Your task to perform on an android device: manage bookmarks in the chrome app Image 0: 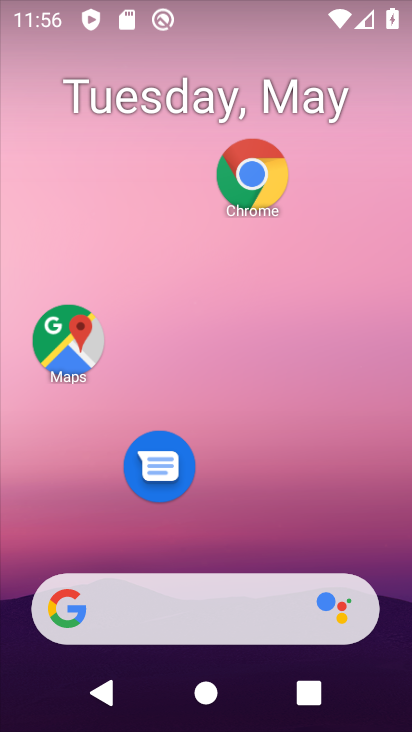
Step 0: click (256, 173)
Your task to perform on an android device: manage bookmarks in the chrome app Image 1: 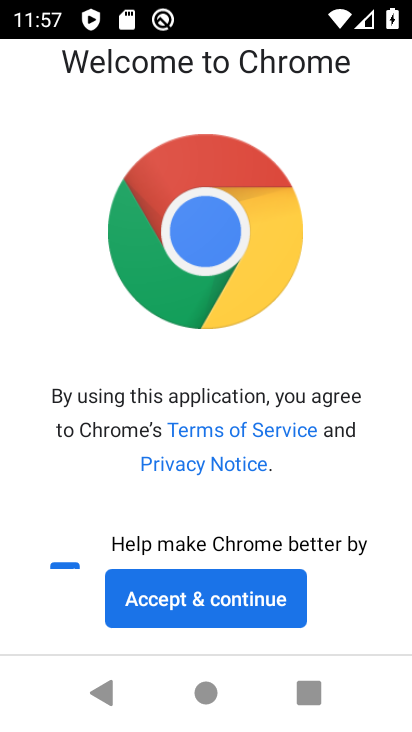
Step 1: click (200, 596)
Your task to perform on an android device: manage bookmarks in the chrome app Image 2: 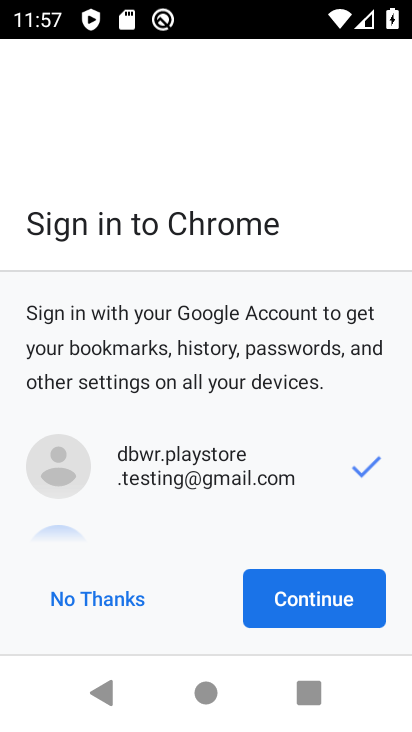
Step 2: click (314, 612)
Your task to perform on an android device: manage bookmarks in the chrome app Image 3: 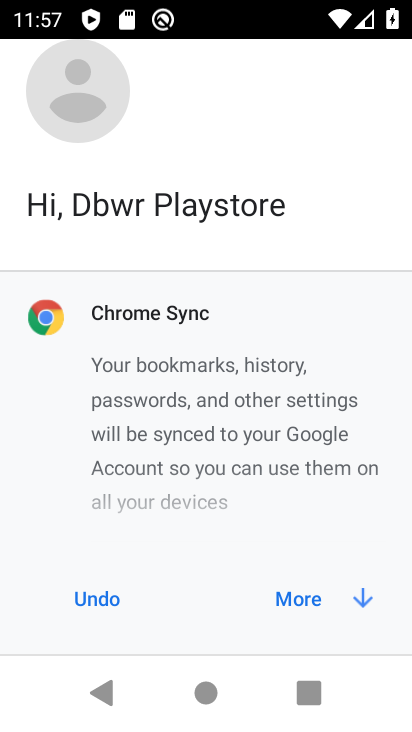
Step 3: click (341, 598)
Your task to perform on an android device: manage bookmarks in the chrome app Image 4: 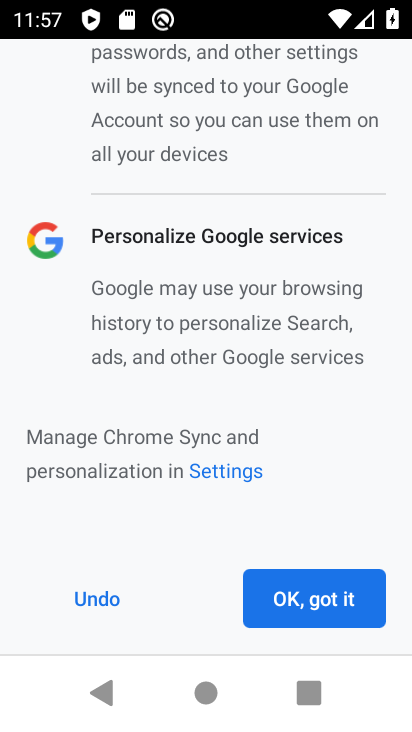
Step 4: click (341, 598)
Your task to perform on an android device: manage bookmarks in the chrome app Image 5: 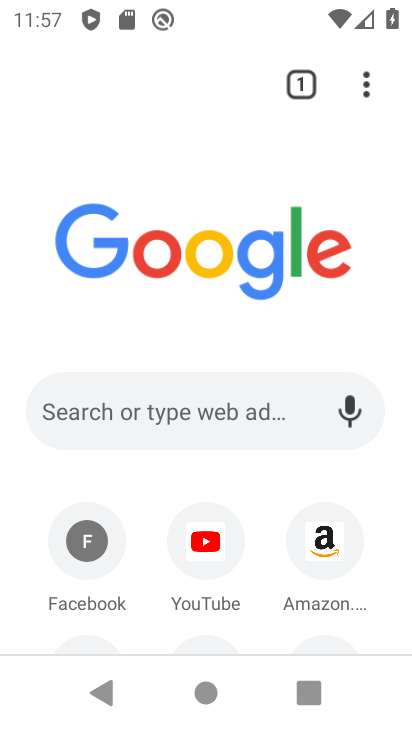
Step 5: click (376, 77)
Your task to perform on an android device: manage bookmarks in the chrome app Image 6: 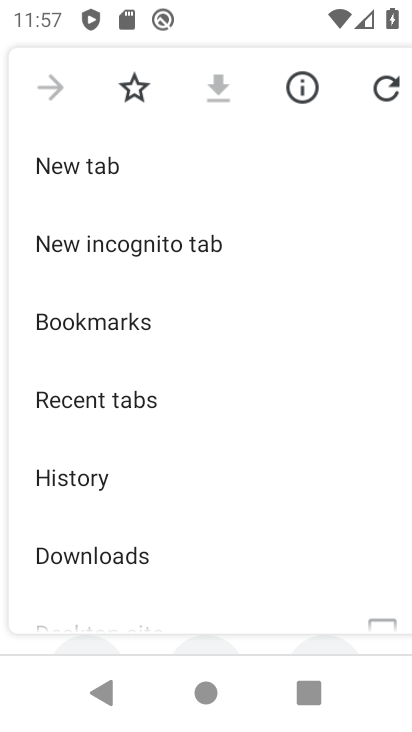
Step 6: click (98, 351)
Your task to perform on an android device: manage bookmarks in the chrome app Image 7: 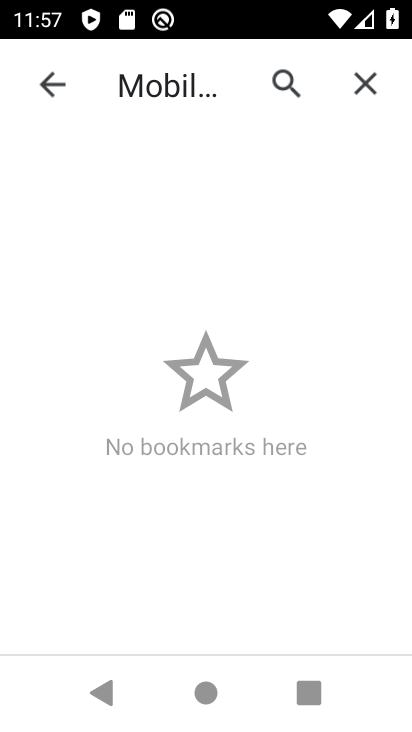
Step 7: task complete